Your task to perform on an android device: Open wifi settings Image 0: 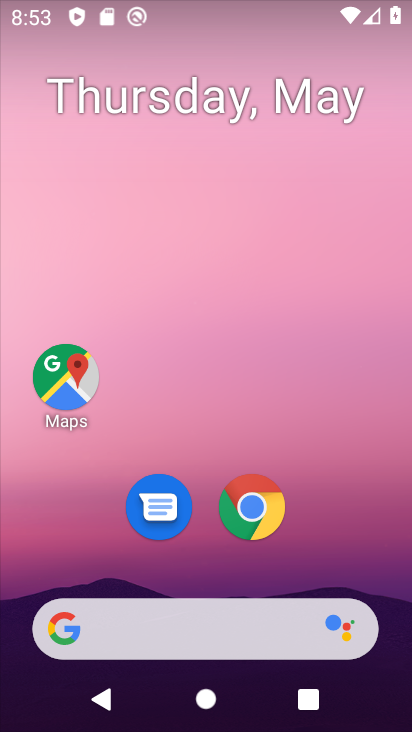
Step 0: drag from (338, 527) to (308, 0)
Your task to perform on an android device: Open wifi settings Image 1: 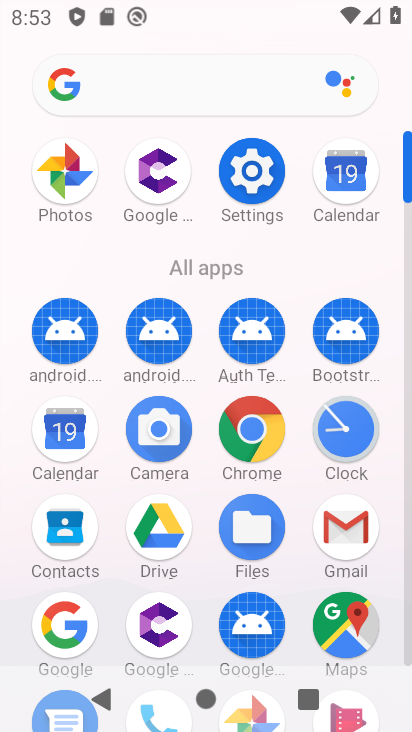
Step 1: click (239, 129)
Your task to perform on an android device: Open wifi settings Image 2: 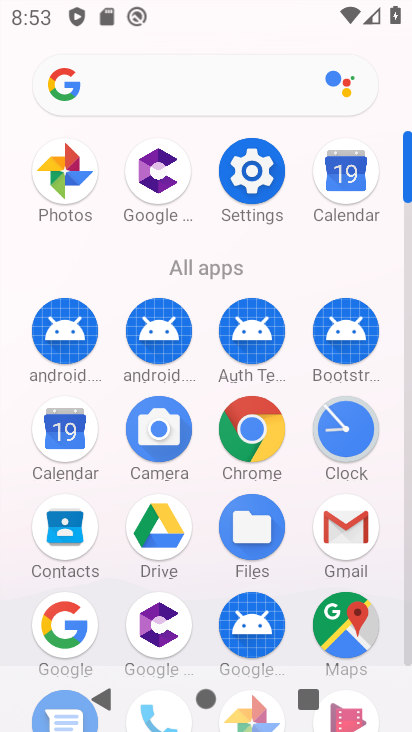
Step 2: click (252, 191)
Your task to perform on an android device: Open wifi settings Image 3: 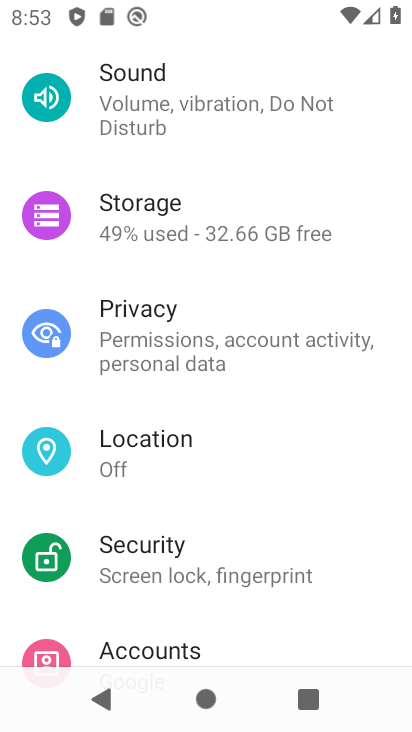
Step 3: drag from (215, 286) to (178, 545)
Your task to perform on an android device: Open wifi settings Image 4: 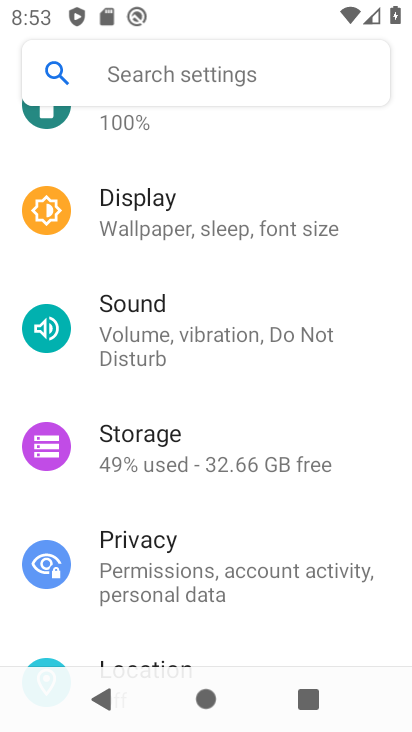
Step 4: drag from (177, 261) to (154, 486)
Your task to perform on an android device: Open wifi settings Image 5: 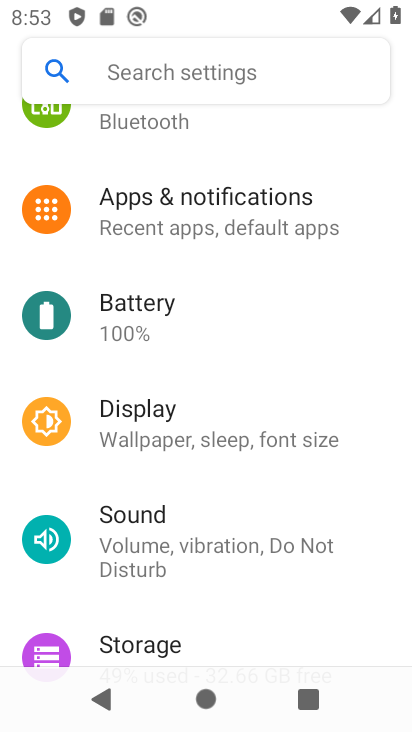
Step 5: drag from (144, 236) to (135, 431)
Your task to perform on an android device: Open wifi settings Image 6: 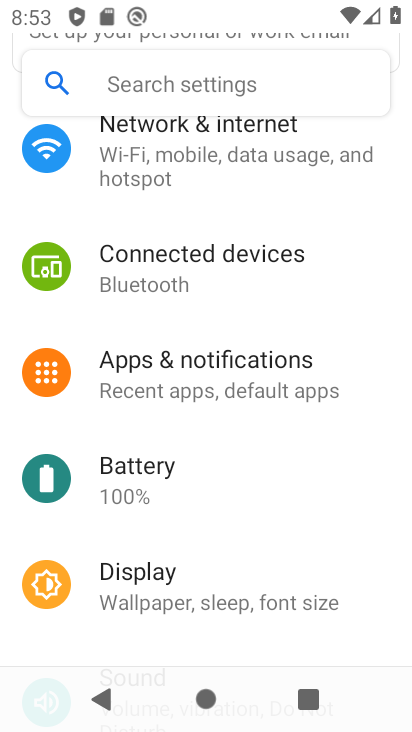
Step 6: click (162, 153)
Your task to perform on an android device: Open wifi settings Image 7: 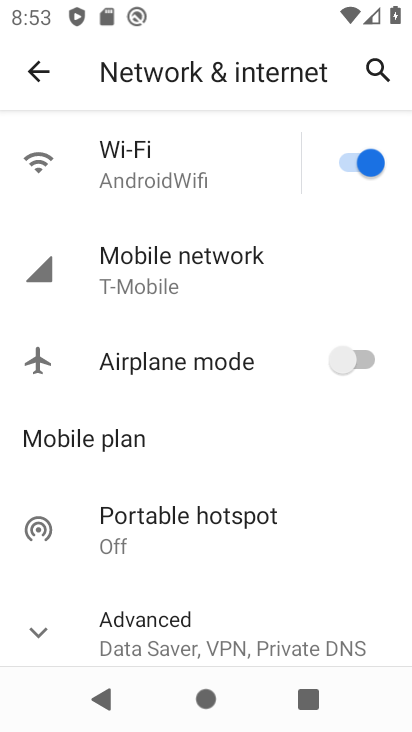
Step 7: click (86, 178)
Your task to perform on an android device: Open wifi settings Image 8: 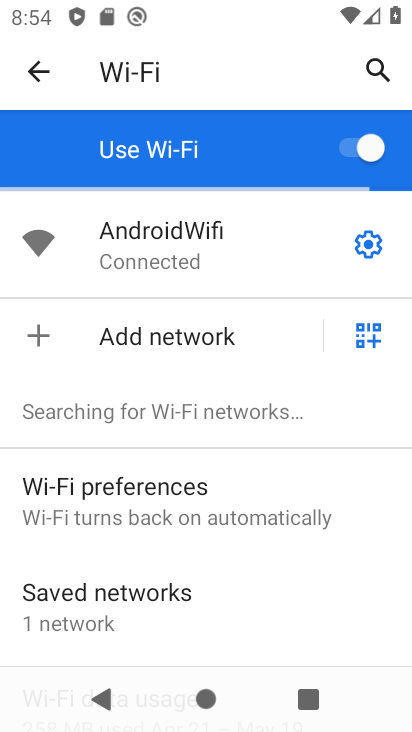
Step 8: task complete